Your task to perform on an android device: Search for the best way to make a resume. Image 0: 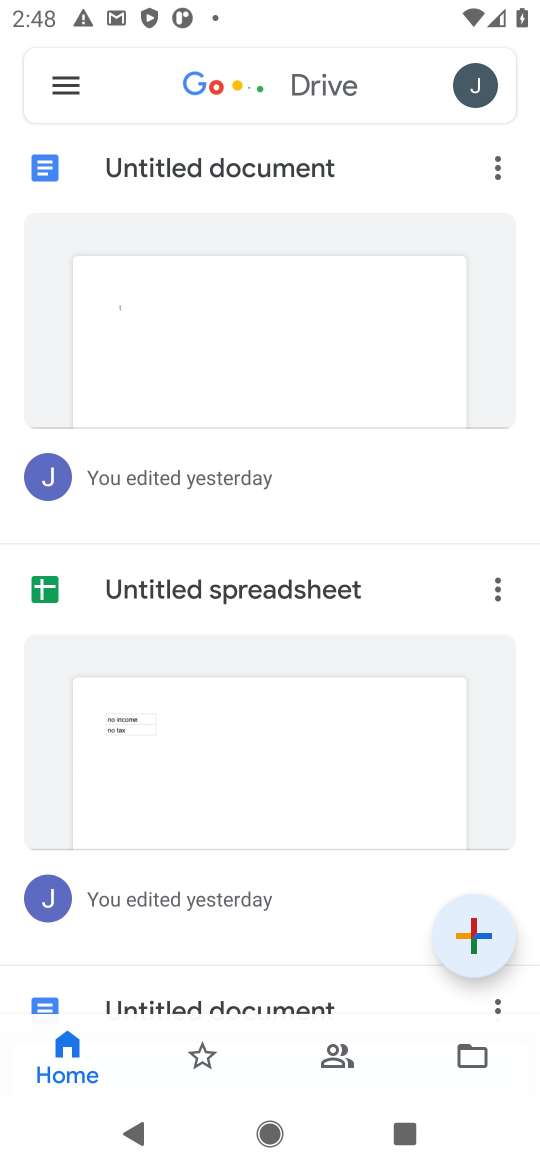
Step 0: press home button
Your task to perform on an android device: Search for the best way to make a resume. Image 1: 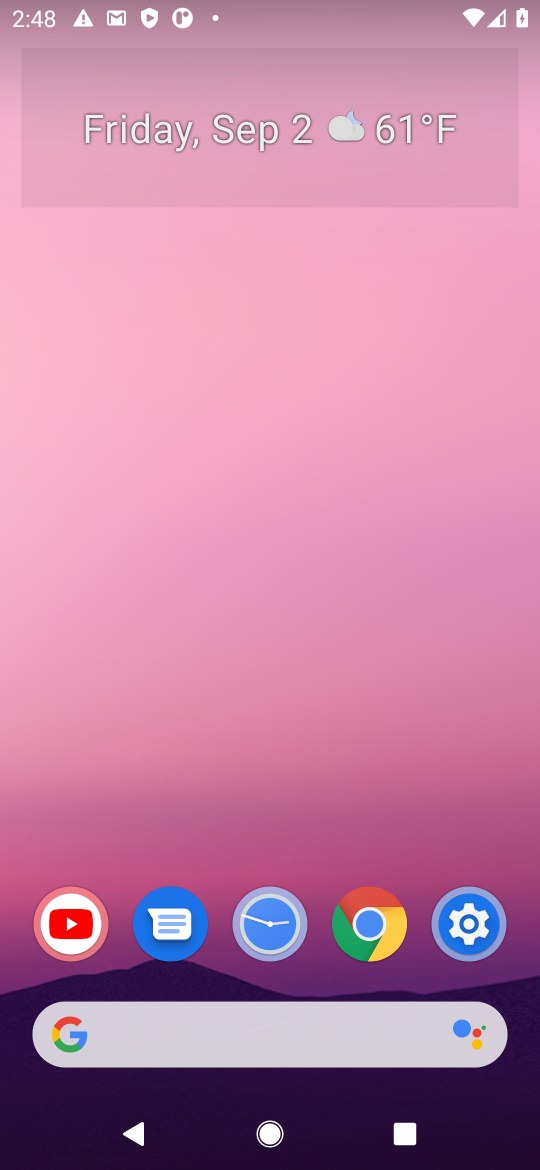
Step 1: click (375, 1042)
Your task to perform on an android device: Search for the best way to make a resume. Image 2: 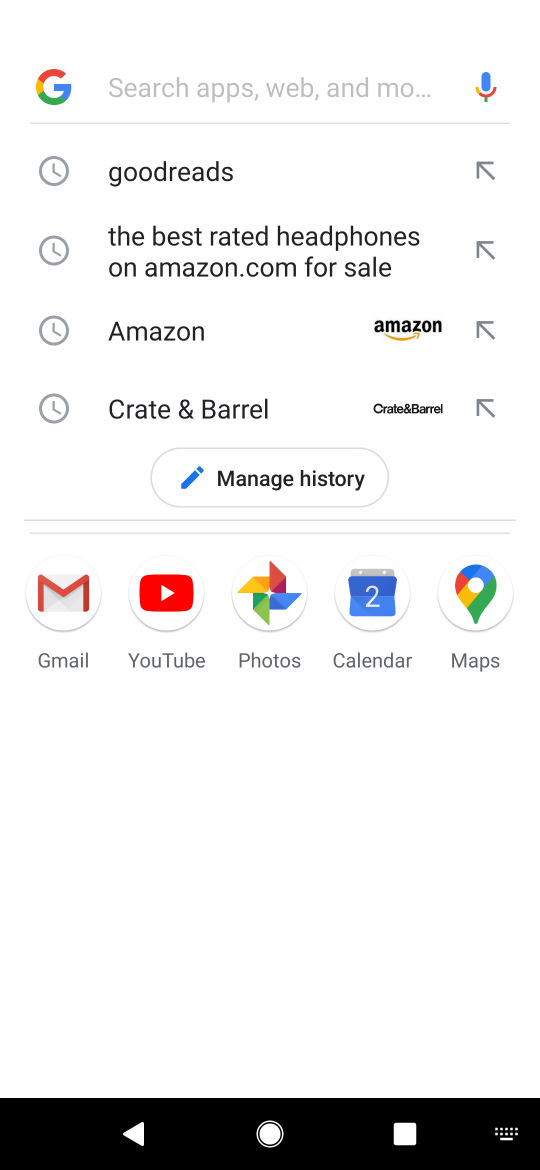
Step 2: press enter
Your task to perform on an android device: Search for the best way to make a resume. Image 3: 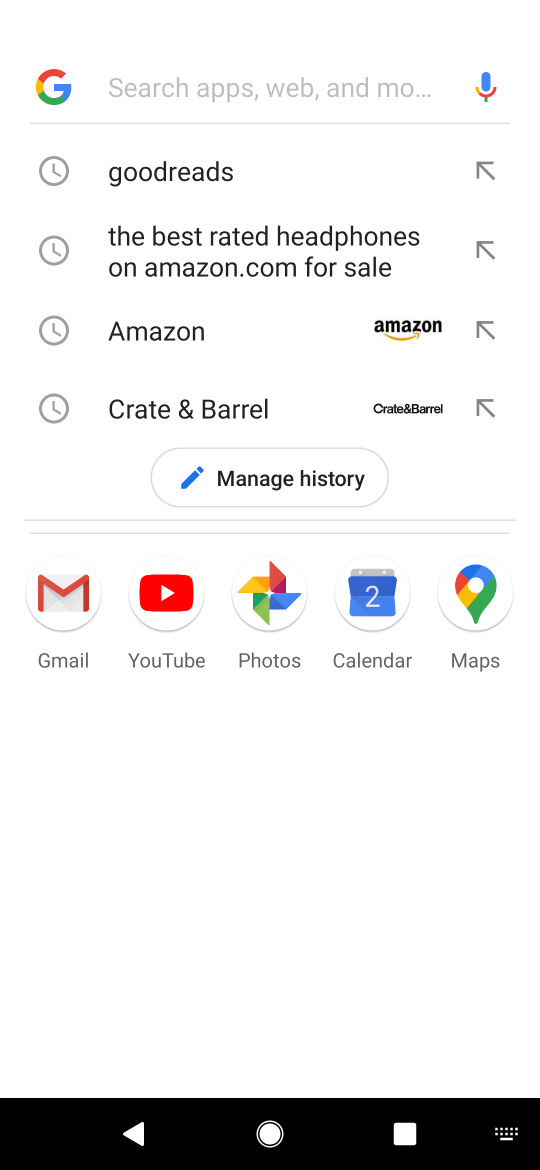
Step 3: type "best way to make a resume"
Your task to perform on an android device: Search for the best way to make a resume. Image 4: 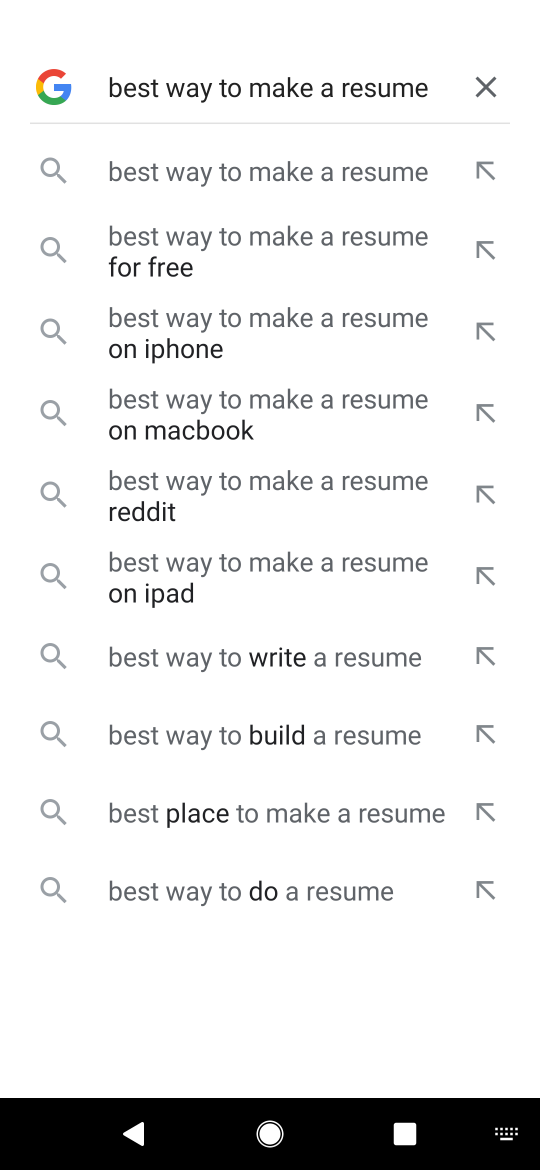
Step 4: click (347, 166)
Your task to perform on an android device: Search for the best way to make a resume. Image 5: 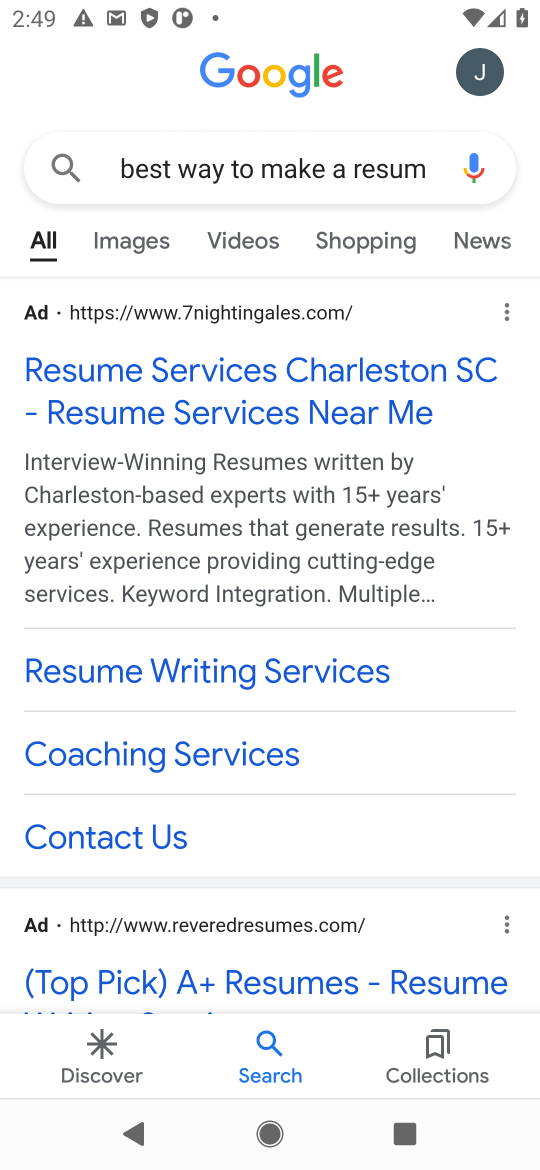
Step 5: task complete